Your task to perform on an android device: Open calendar and show me the fourth week of next month Image 0: 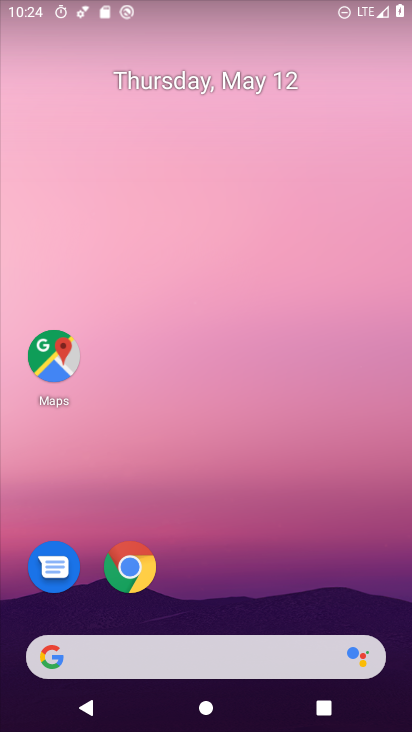
Step 0: drag from (209, 586) to (274, 136)
Your task to perform on an android device: Open calendar and show me the fourth week of next month Image 1: 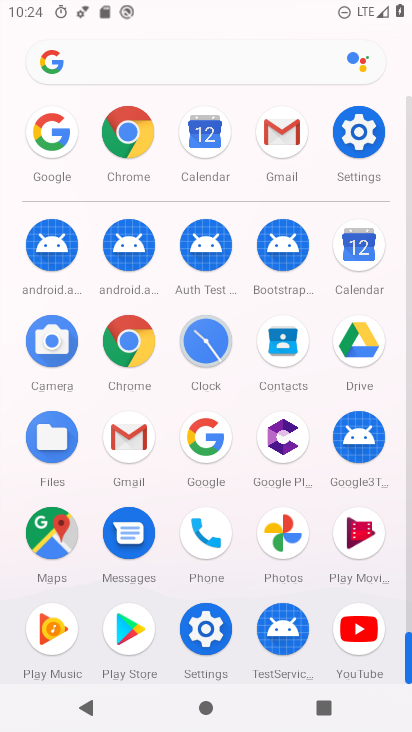
Step 1: drag from (256, 455) to (242, 321)
Your task to perform on an android device: Open calendar and show me the fourth week of next month Image 2: 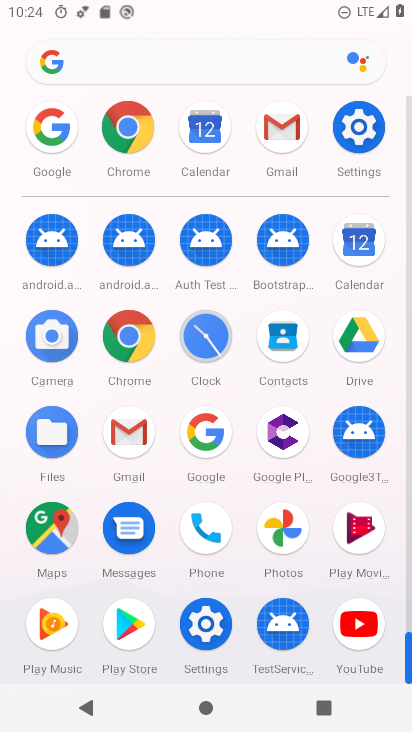
Step 2: click (357, 260)
Your task to perform on an android device: Open calendar and show me the fourth week of next month Image 3: 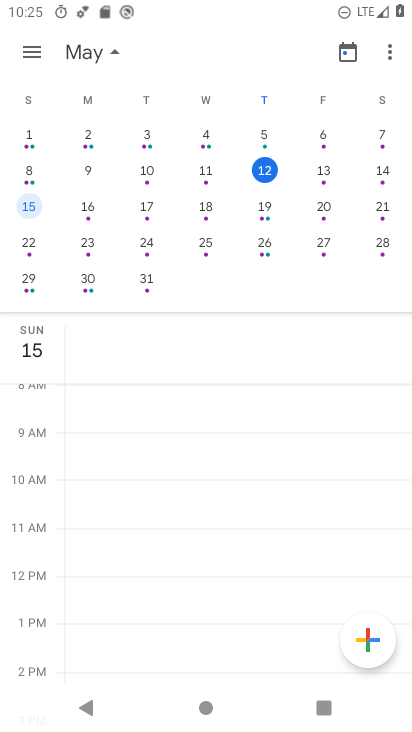
Step 3: drag from (342, 211) to (226, 413)
Your task to perform on an android device: Open calendar and show me the fourth week of next month Image 4: 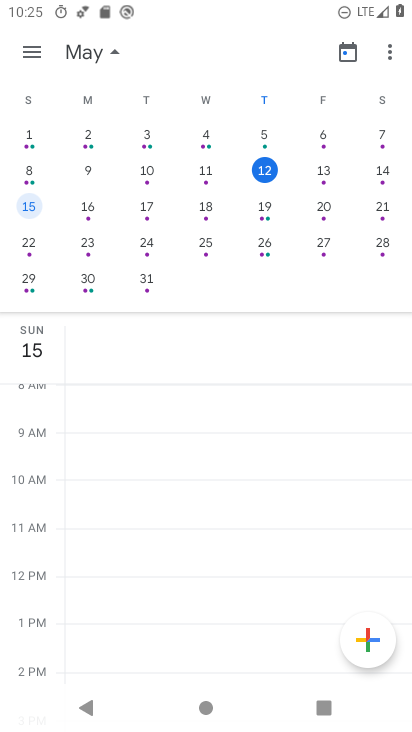
Step 4: drag from (296, 222) to (3, 281)
Your task to perform on an android device: Open calendar and show me the fourth week of next month Image 5: 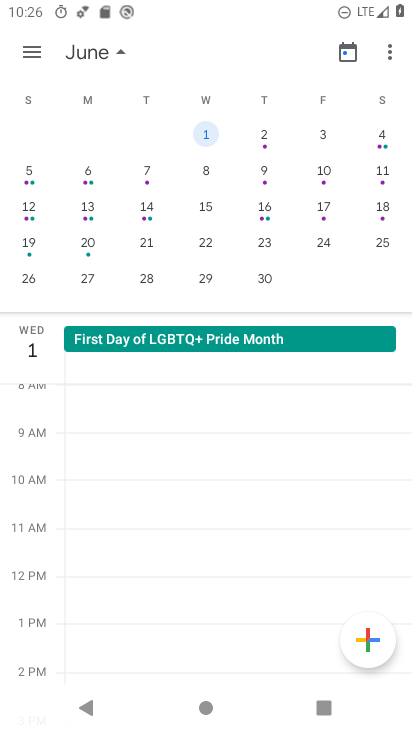
Step 5: click (15, 276)
Your task to perform on an android device: Open calendar and show me the fourth week of next month Image 6: 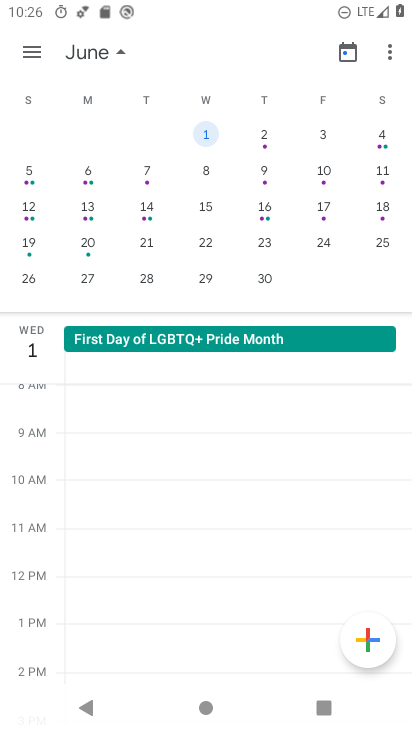
Step 6: click (32, 283)
Your task to perform on an android device: Open calendar and show me the fourth week of next month Image 7: 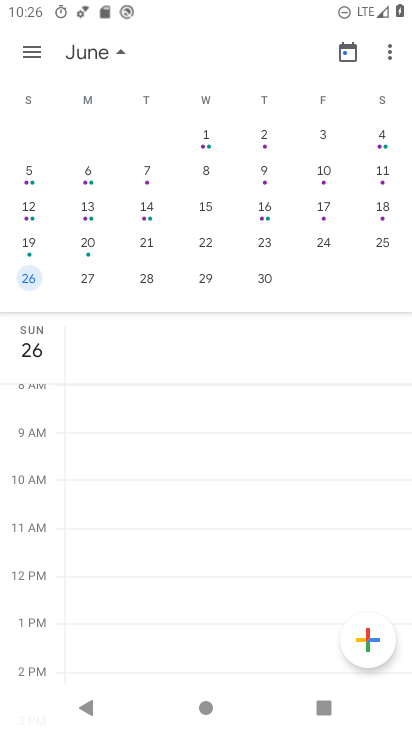
Step 7: task complete